Your task to perform on an android device: clear all cookies in the chrome app Image 0: 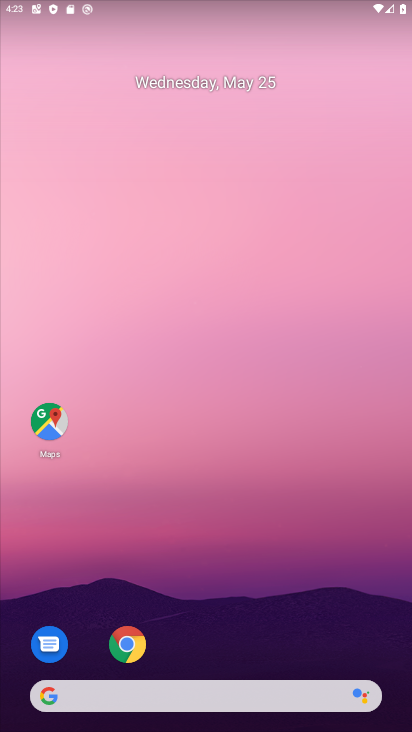
Step 0: click (135, 650)
Your task to perform on an android device: clear all cookies in the chrome app Image 1: 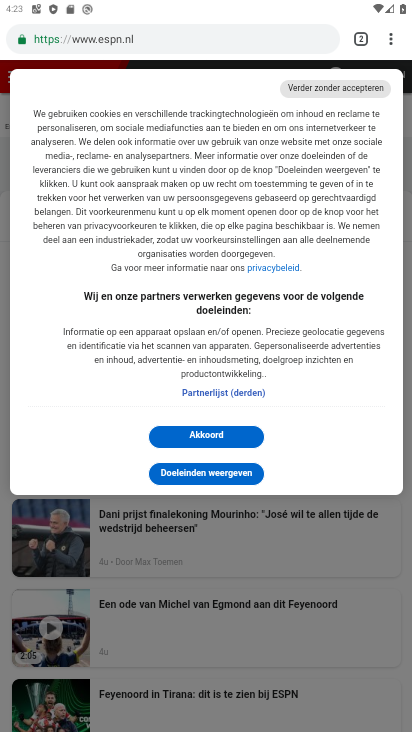
Step 1: click (390, 37)
Your task to perform on an android device: clear all cookies in the chrome app Image 2: 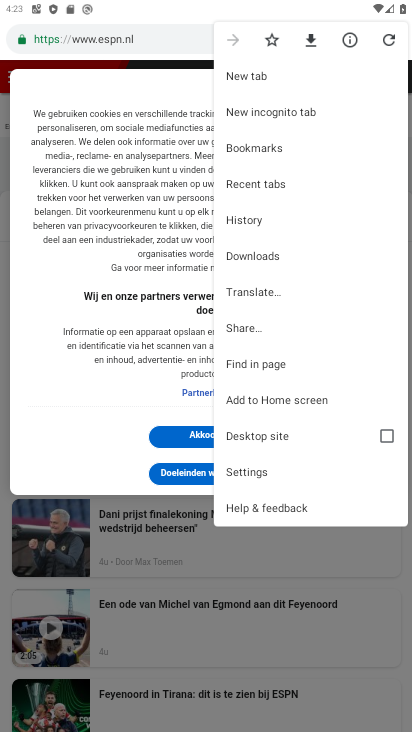
Step 2: click (251, 474)
Your task to perform on an android device: clear all cookies in the chrome app Image 3: 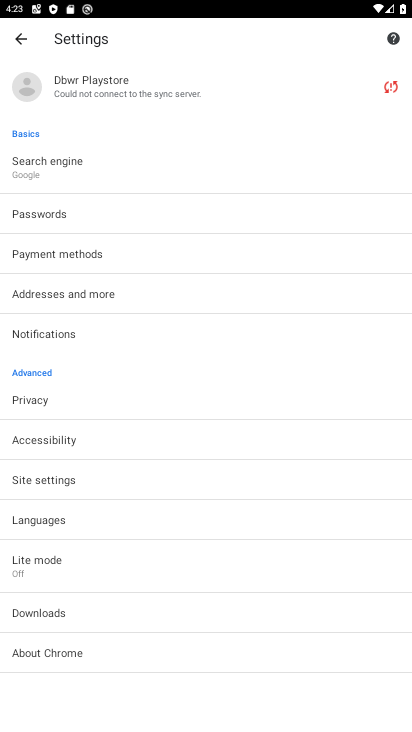
Step 3: click (21, 399)
Your task to perform on an android device: clear all cookies in the chrome app Image 4: 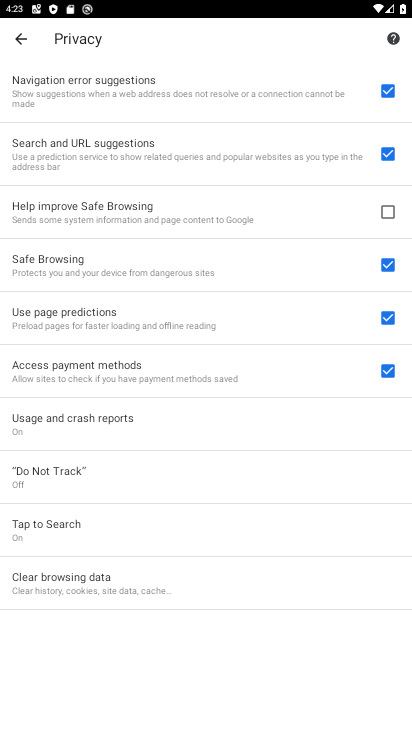
Step 4: click (60, 579)
Your task to perform on an android device: clear all cookies in the chrome app Image 5: 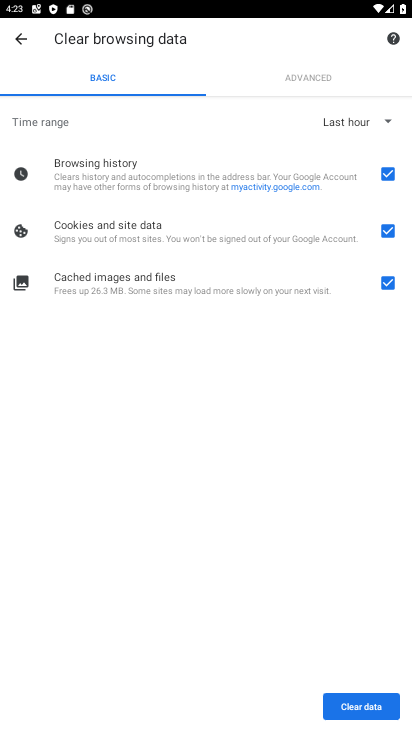
Step 5: click (385, 173)
Your task to perform on an android device: clear all cookies in the chrome app Image 6: 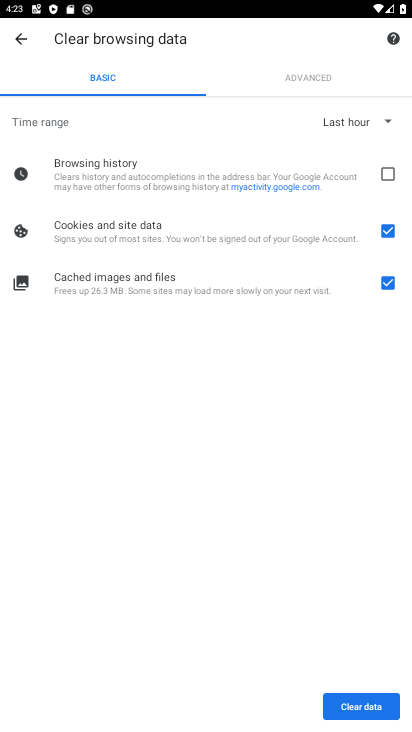
Step 6: click (385, 286)
Your task to perform on an android device: clear all cookies in the chrome app Image 7: 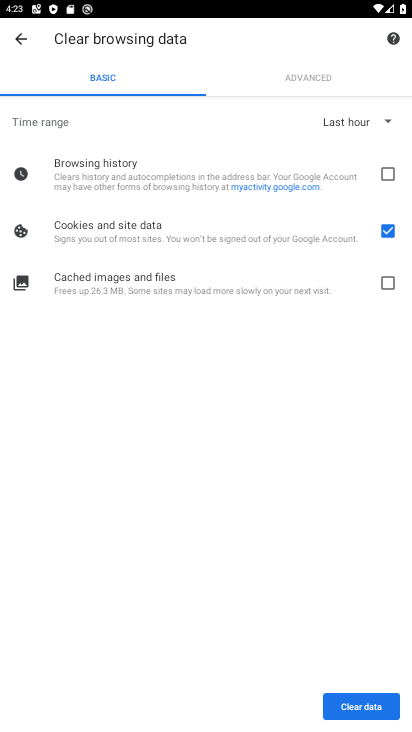
Step 7: click (346, 712)
Your task to perform on an android device: clear all cookies in the chrome app Image 8: 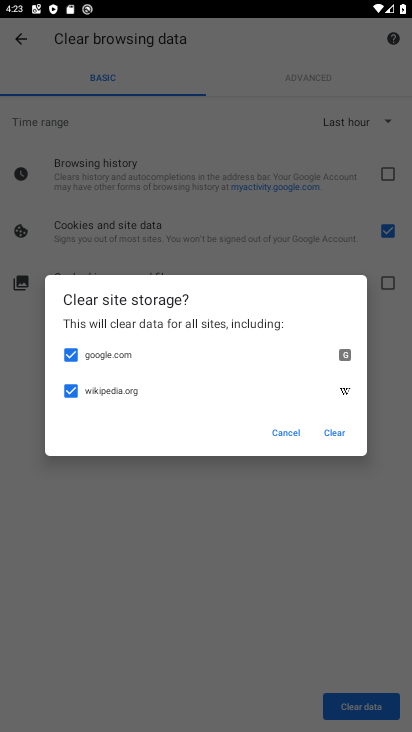
Step 8: click (338, 433)
Your task to perform on an android device: clear all cookies in the chrome app Image 9: 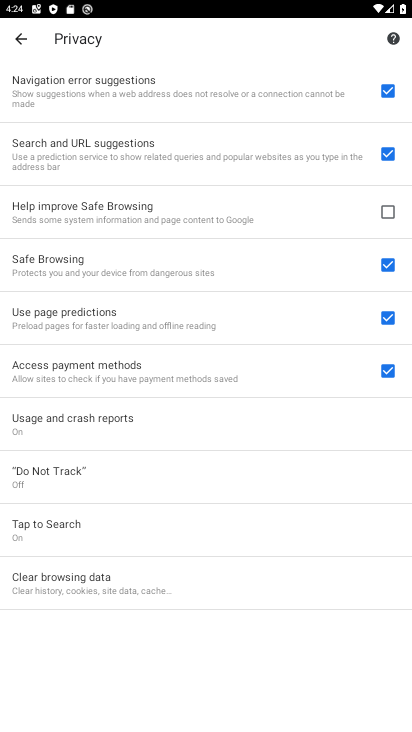
Step 9: task complete